Your task to perform on an android device: turn smart compose on in the gmail app Image 0: 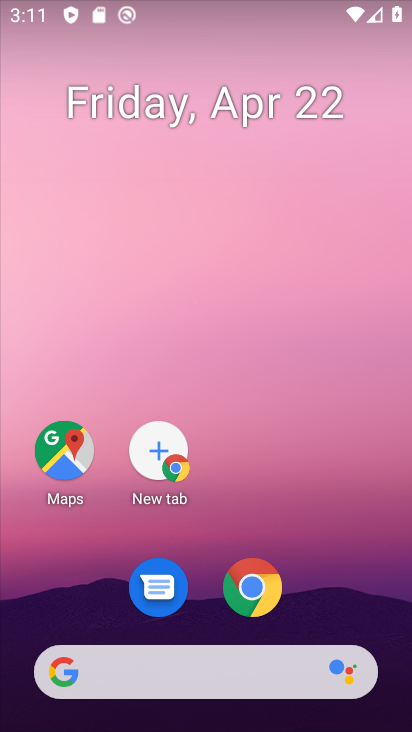
Step 0: drag from (206, 598) to (227, 43)
Your task to perform on an android device: turn smart compose on in the gmail app Image 1: 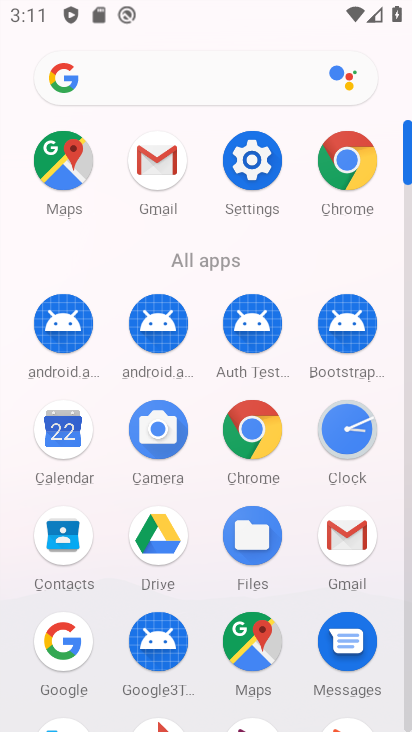
Step 1: click (149, 144)
Your task to perform on an android device: turn smart compose on in the gmail app Image 2: 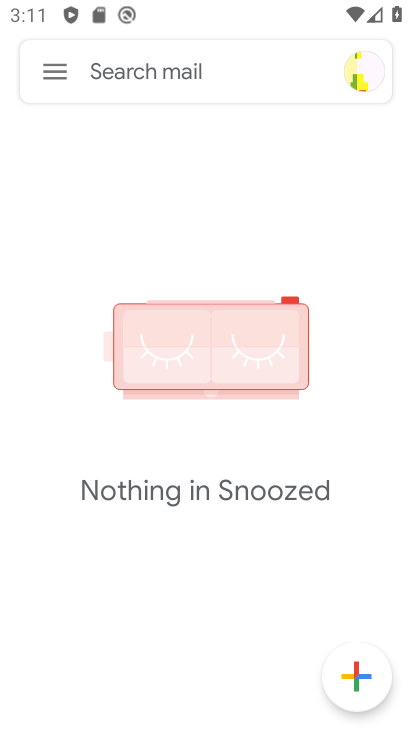
Step 2: click (56, 74)
Your task to perform on an android device: turn smart compose on in the gmail app Image 3: 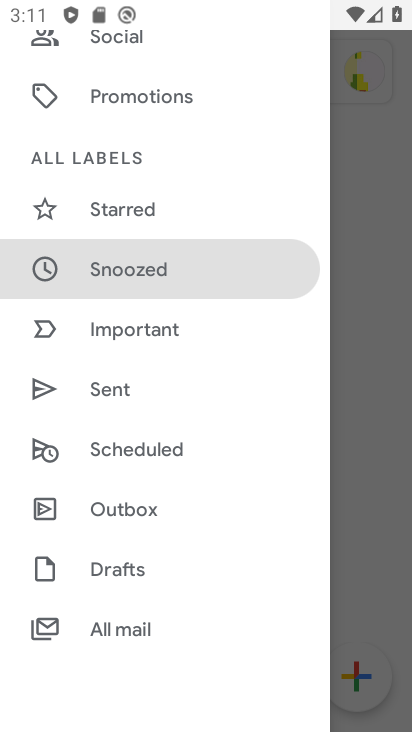
Step 3: drag from (137, 601) to (160, 241)
Your task to perform on an android device: turn smart compose on in the gmail app Image 4: 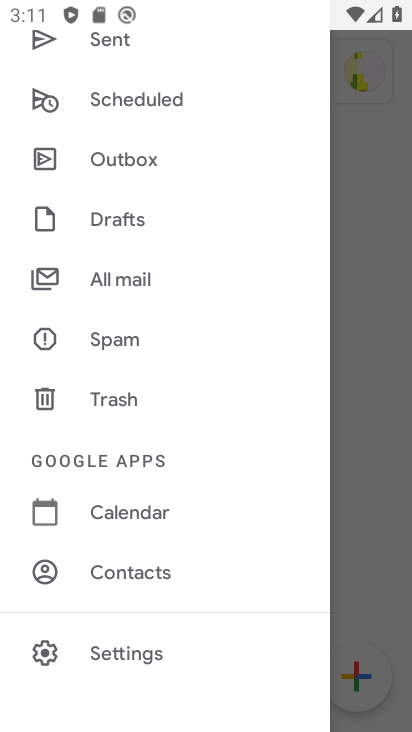
Step 4: click (162, 656)
Your task to perform on an android device: turn smart compose on in the gmail app Image 5: 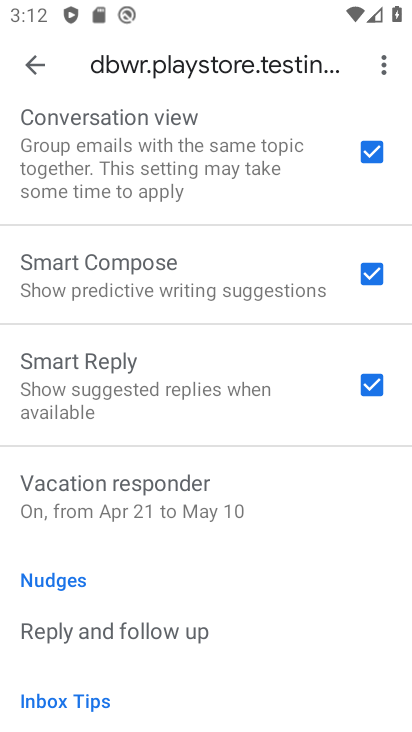
Step 5: task complete